Your task to perform on an android device: snooze an email in the gmail app Image 0: 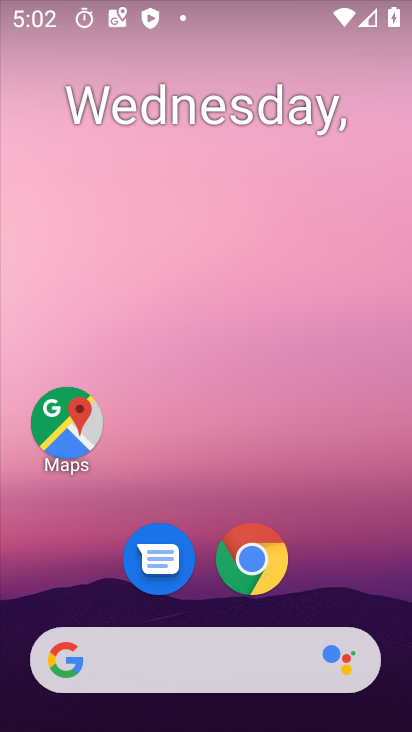
Step 0: drag from (331, 521) to (225, 54)
Your task to perform on an android device: snooze an email in the gmail app Image 1: 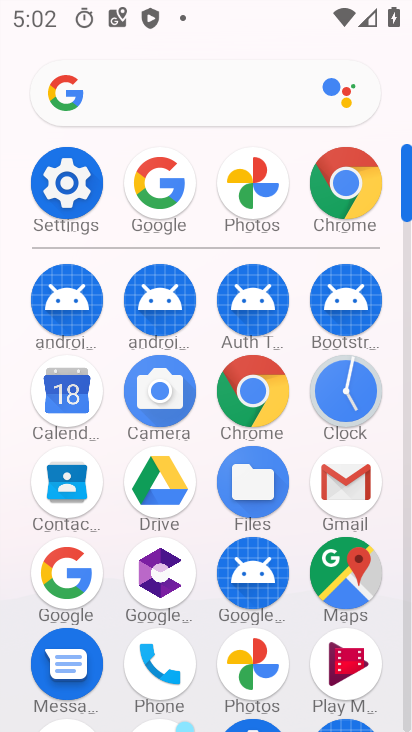
Step 1: click (363, 493)
Your task to perform on an android device: snooze an email in the gmail app Image 2: 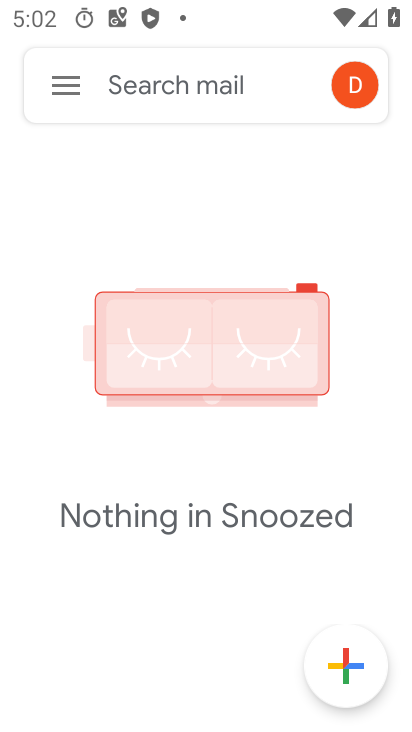
Step 2: click (76, 72)
Your task to perform on an android device: snooze an email in the gmail app Image 3: 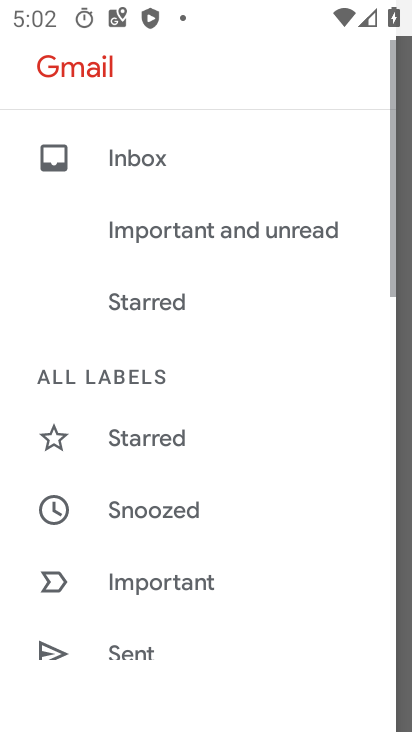
Step 3: click (191, 158)
Your task to perform on an android device: snooze an email in the gmail app Image 4: 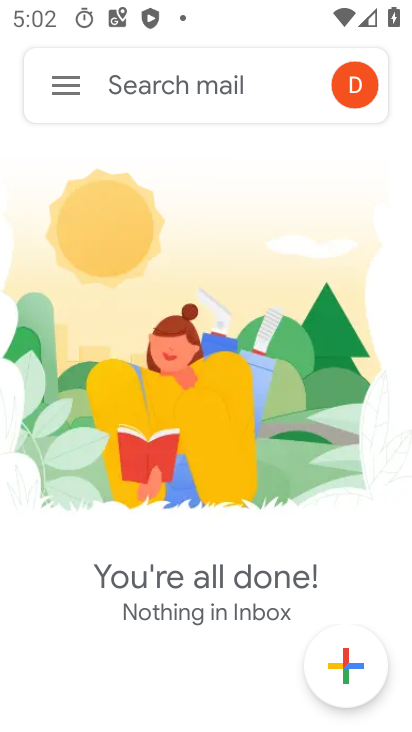
Step 4: click (66, 75)
Your task to perform on an android device: snooze an email in the gmail app Image 5: 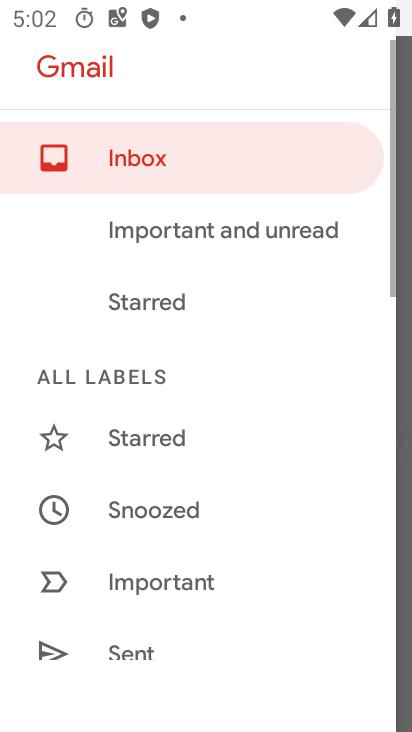
Step 5: drag from (224, 547) to (216, 105)
Your task to perform on an android device: snooze an email in the gmail app Image 6: 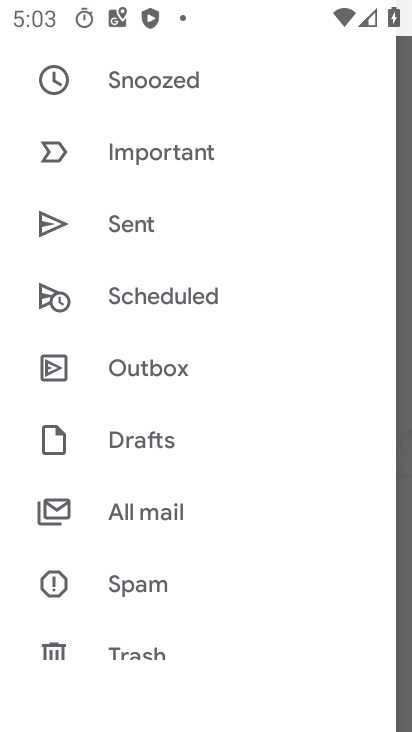
Step 6: click (182, 494)
Your task to perform on an android device: snooze an email in the gmail app Image 7: 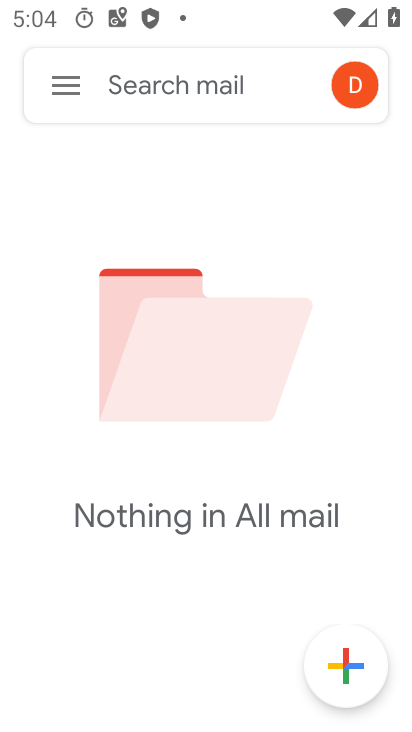
Step 7: task complete